Your task to perform on an android device: check the backup settings in the google photos Image 0: 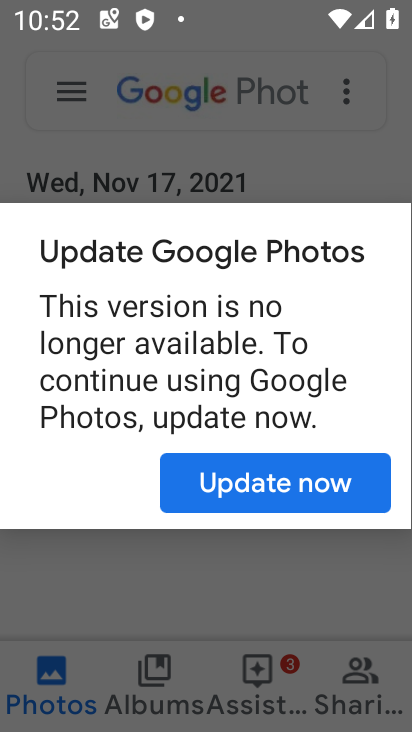
Step 0: press home button
Your task to perform on an android device: check the backup settings in the google photos Image 1: 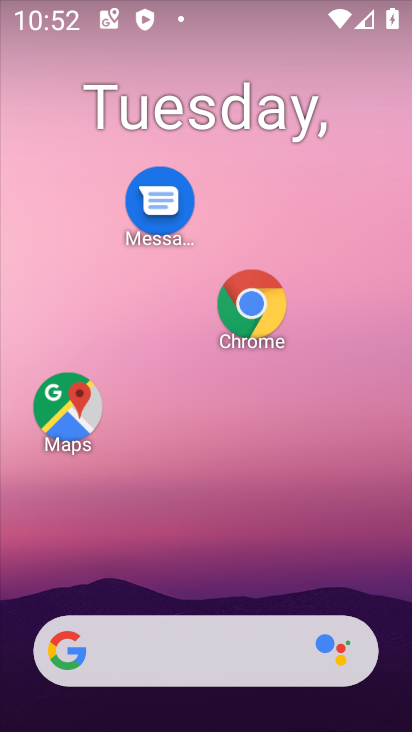
Step 1: drag from (200, 641) to (237, 121)
Your task to perform on an android device: check the backup settings in the google photos Image 2: 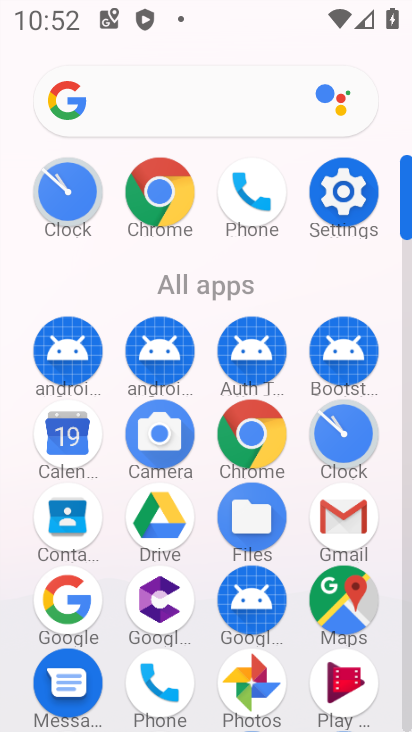
Step 2: drag from (203, 609) to (254, 168)
Your task to perform on an android device: check the backup settings in the google photos Image 3: 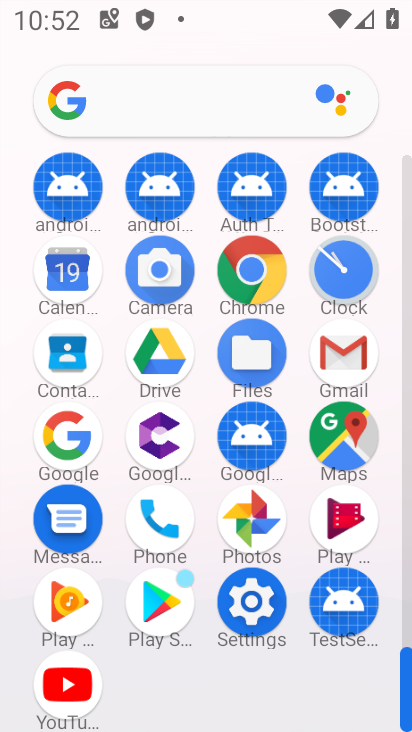
Step 3: click (250, 533)
Your task to perform on an android device: check the backup settings in the google photos Image 4: 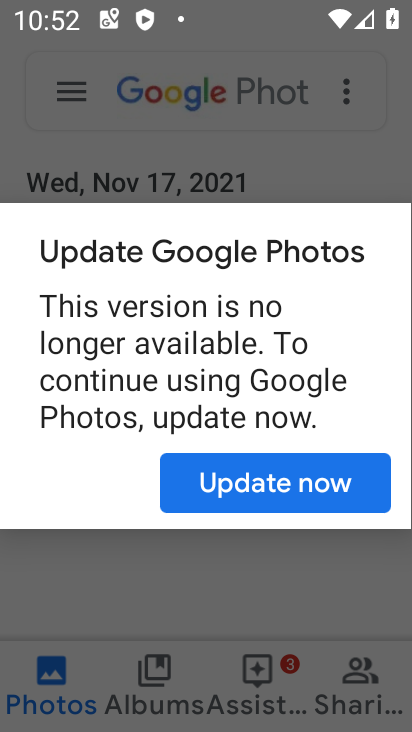
Step 4: click (306, 485)
Your task to perform on an android device: check the backup settings in the google photos Image 5: 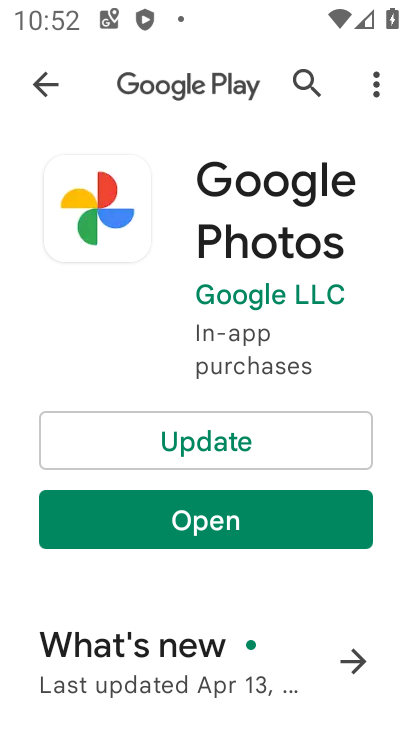
Step 5: press back button
Your task to perform on an android device: check the backup settings in the google photos Image 6: 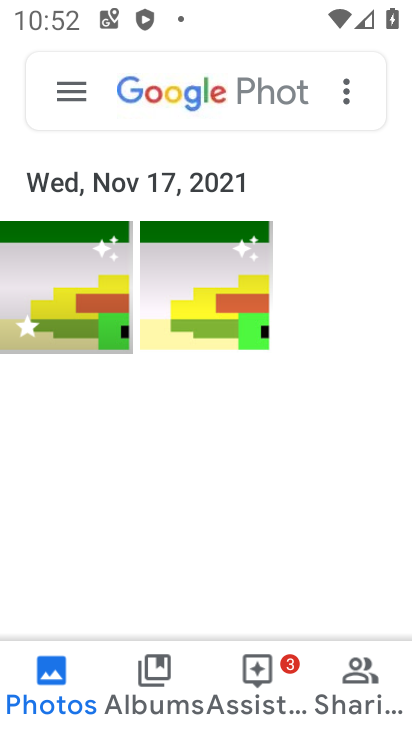
Step 6: click (74, 81)
Your task to perform on an android device: check the backup settings in the google photos Image 7: 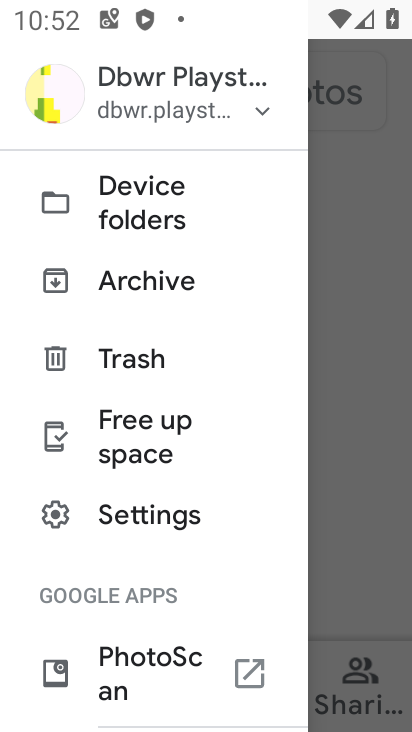
Step 7: click (131, 517)
Your task to perform on an android device: check the backup settings in the google photos Image 8: 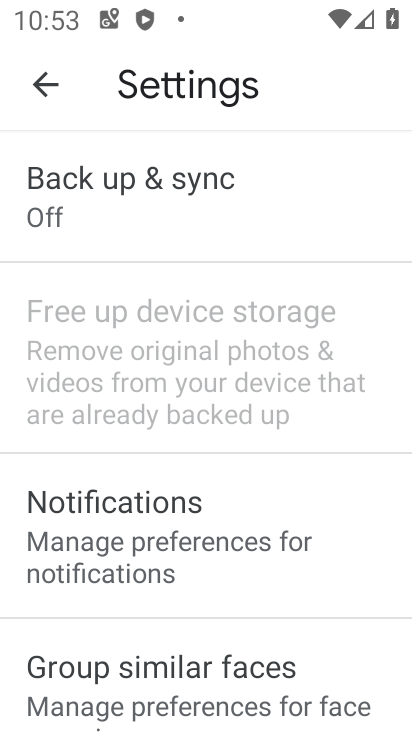
Step 8: click (216, 204)
Your task to perform on an android device: check the backup settings in the google photos Image 9: 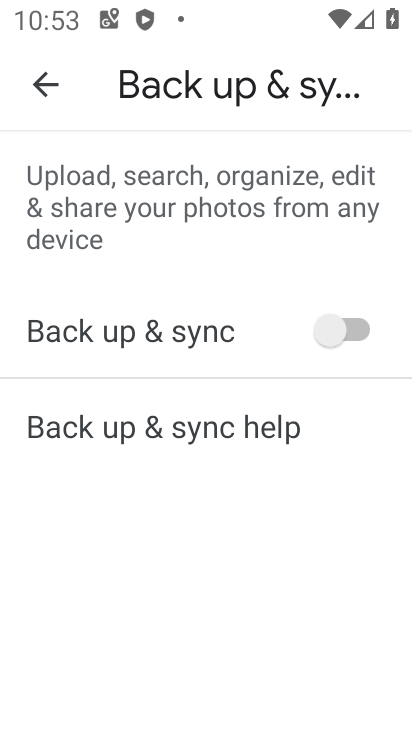
Step 9: click (342, 335)
Your task to perform on an android device: check the backup settings in the google photos Image 10: 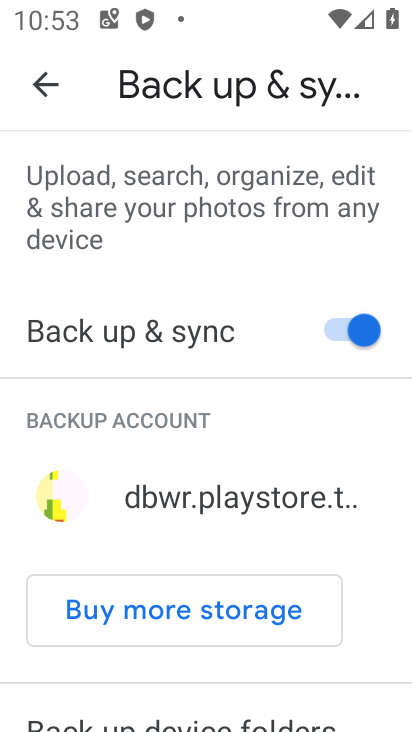
Step 10: task complete